Your task to perform on an android device: toggle translation in the chrome app Image 0: 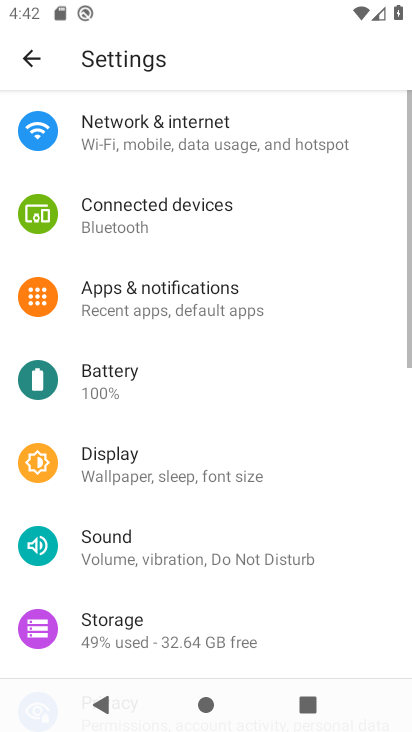
Step 0: press back button
Your task to perform on an android device: toggle translation in the chrome app Image 1: 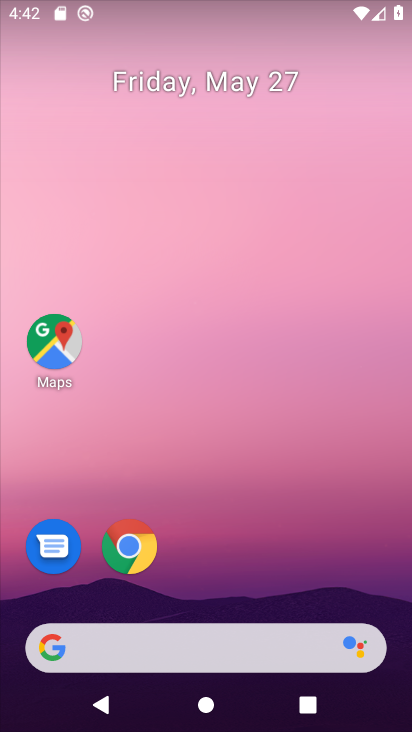
Step 1: drag from (270, 514) to (269, 38)
Your task to perform on an android device: toggle translation in the chrome app Image 2: 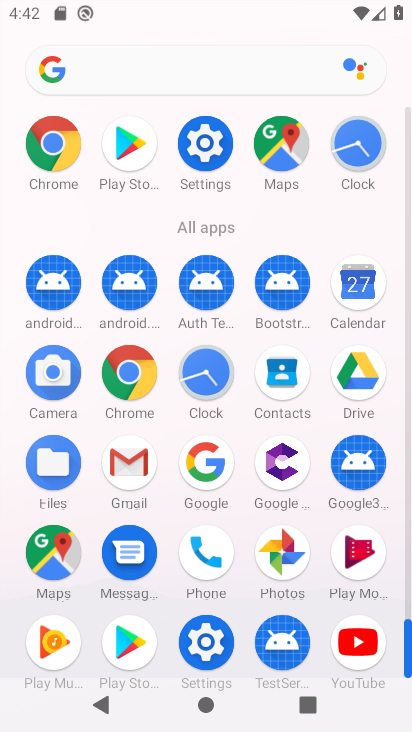
Step 2: click (49, 142)
Your task to perform on an android device: toggle translation in the chrome app Image 3: 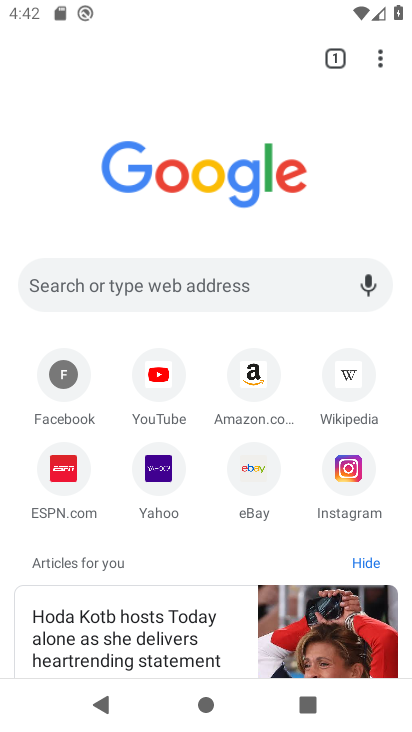
Step 3: drag from (382, 58) to (191, 478)
Your task to perform on an android device: toggle translation in the chrome app Image 4: 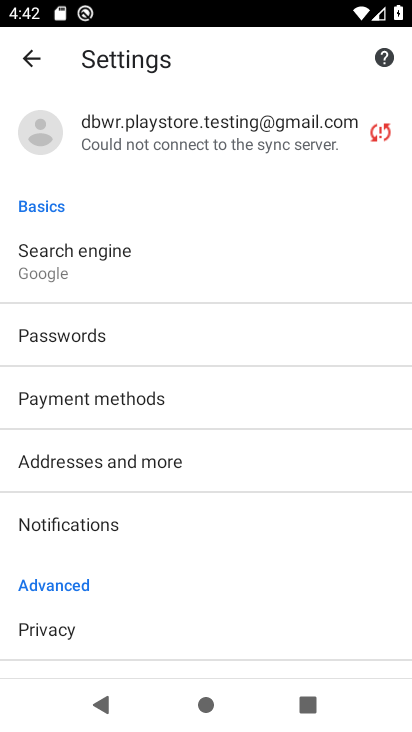
Step 4: drag from (200, 575) to (197, 189)
Your task to perform on an android device: toggle translation in the chrome app Image 5: 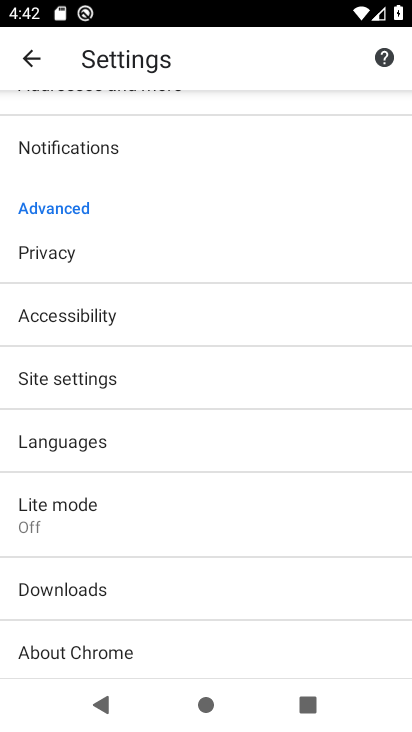
Step 5: click (114, 456)
Your task to perform on an android device: toggle translation in the chrome app Image 6: 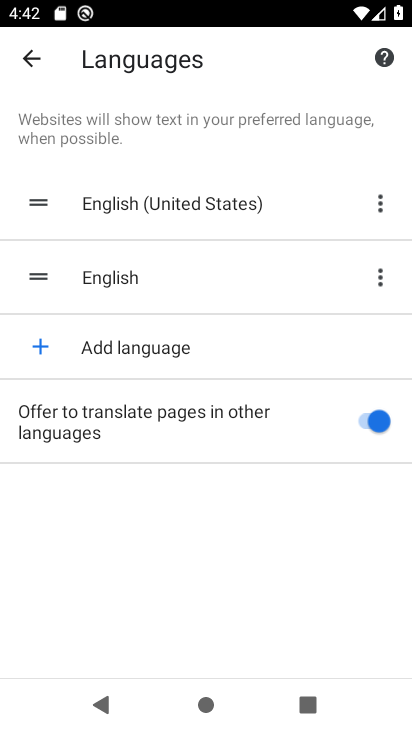
Step 6: click (376, 407)
Your task to perform on an android device: toggle translation in the chrome app Image 7: 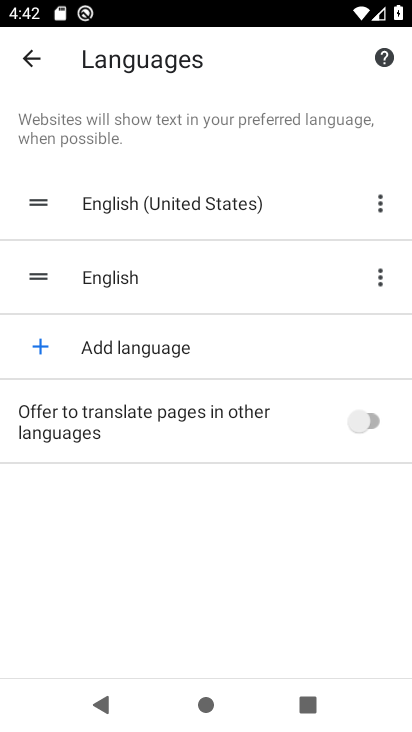
Step 7: task complete